Your task to perform on an android device: Open Google Image 0: 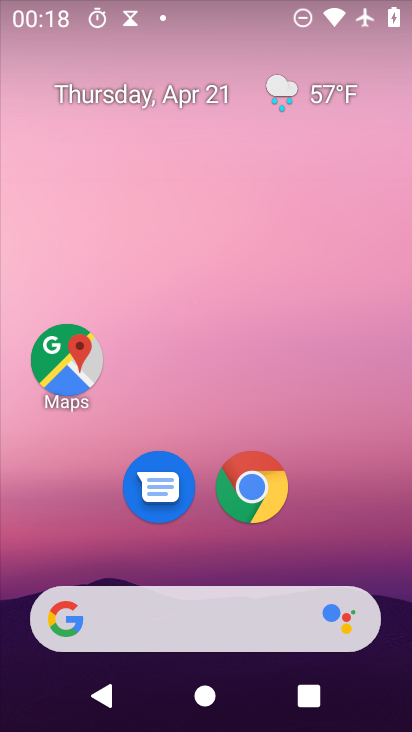
Step 0: drag from (345, 521) to (234, 100)
Your task to perform on an android device: Open Google Image 1: 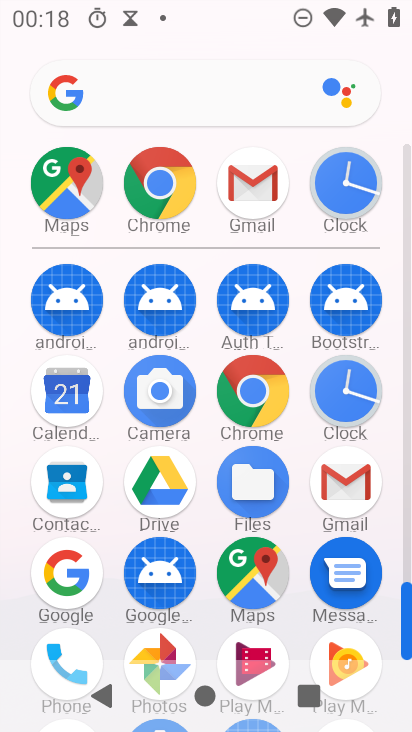
Step 1: click (152, 175)
Your task to perform on an android device: Open Google Image 2: 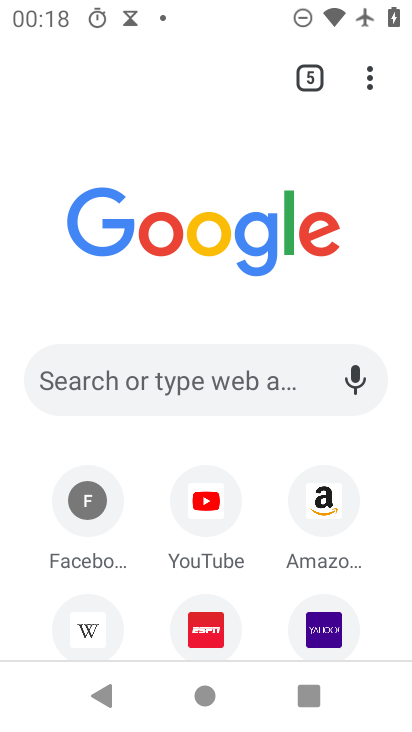
Step 2: drag from (245, 490) to (240, 189)
Your task to perform on an android device: Open Google Image 3: 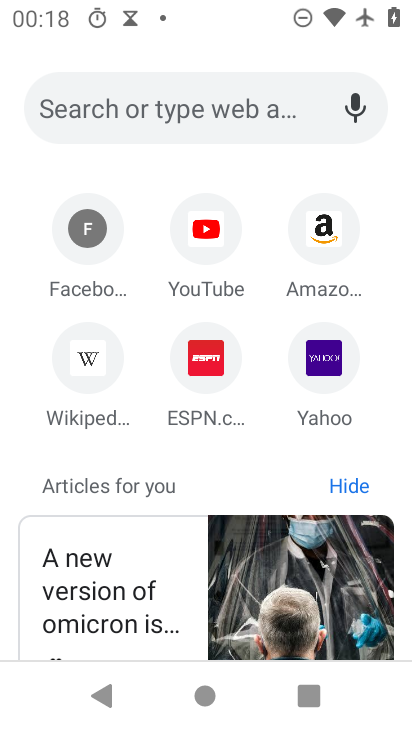
Step 3: click (221, 105)
Your task to perform on an android device: Open Google Image 4: 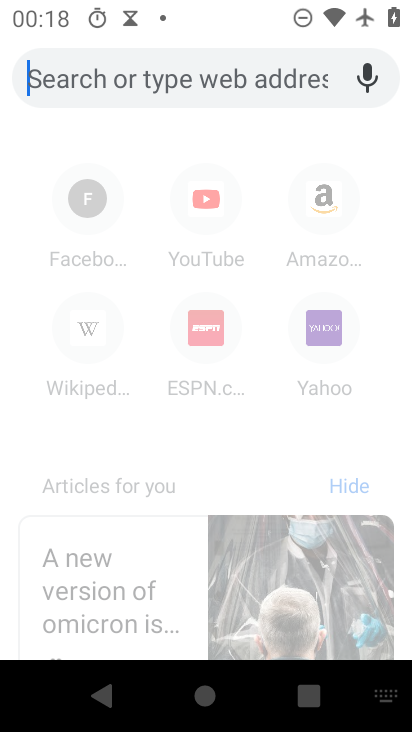
Step 4: type " Google"
Your task to perform on an android device: Open Google Image 5: 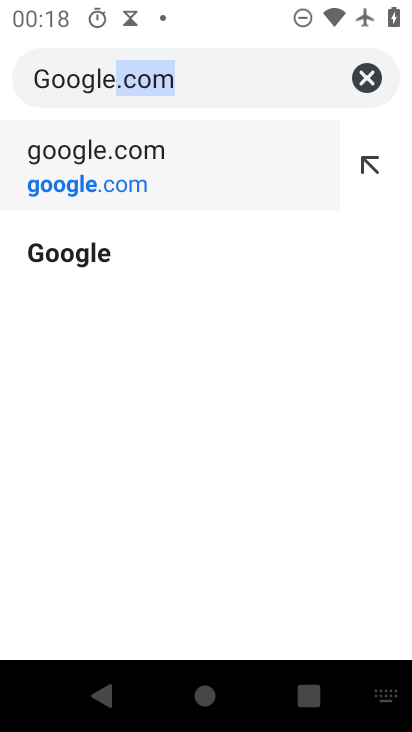
Step 5: type ""
Your task to perform on an android device: Open Google Image 6: 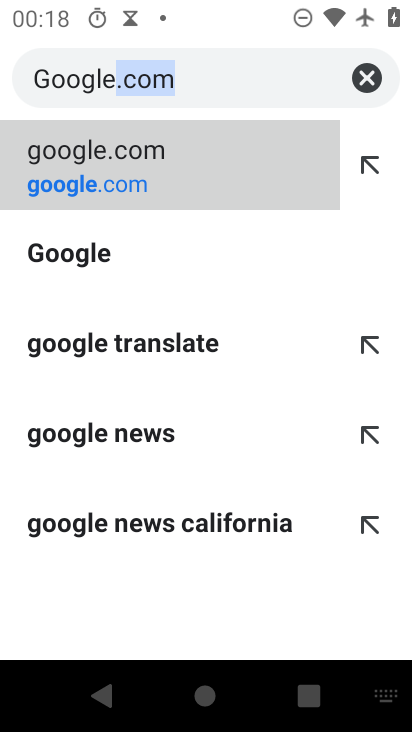
Step 6: click (223, 172)
Your task to perform on an android device: Open Google Image 7: 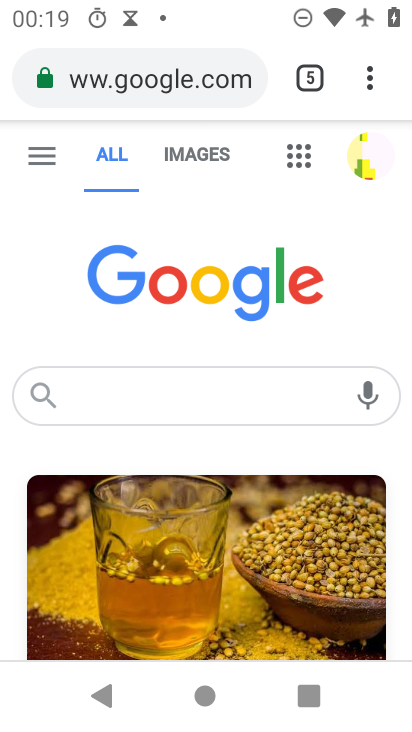
Step 7: task complete